Your task to perform on an android device: empty trash in google photos Image 0: 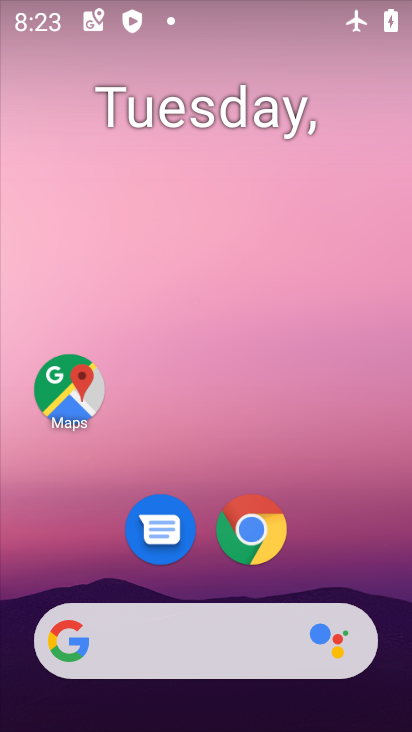
Step 0: drag from (217, 668) to (190, 49)
Your task to perform on an android device: empty trash in google photos Image 1: 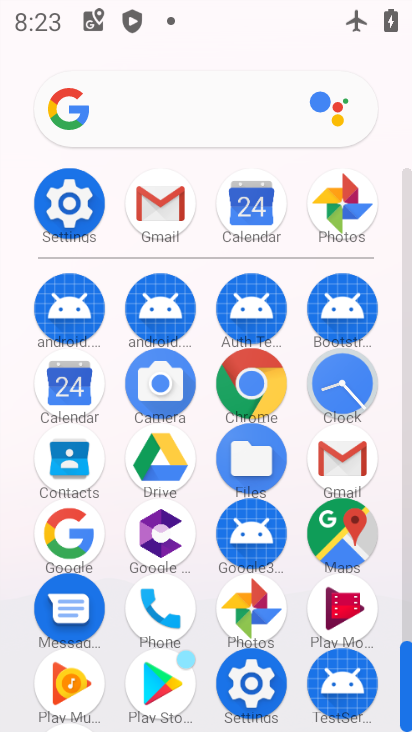
Step 1: click (257, 594)
Your task to perform on an android device: empty trash in google photos Image 2: 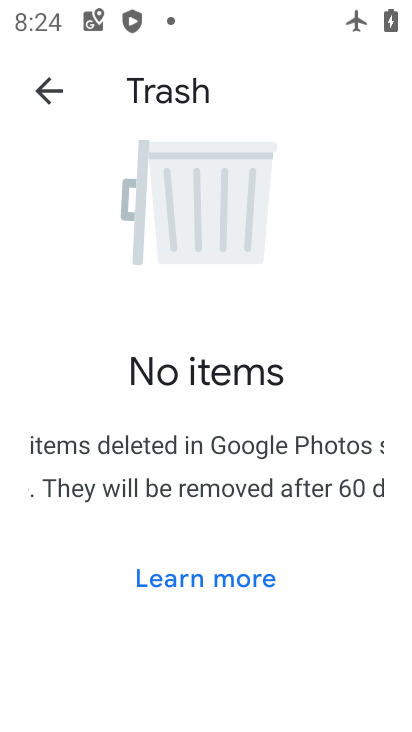
Step 2: task complete